Your task to perform on an android device: change notifications settings Image 0: 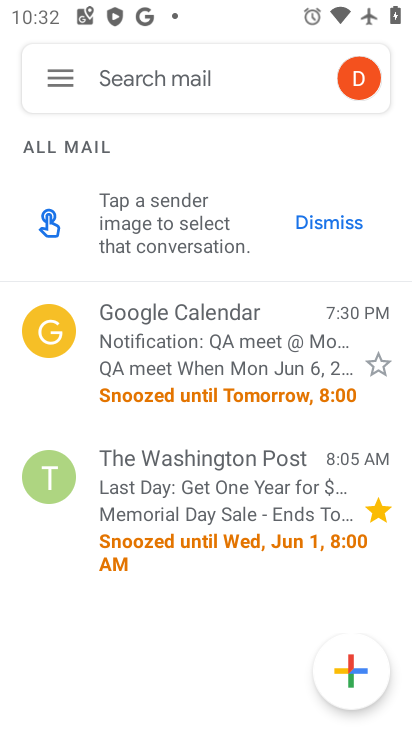
Step 0: press home button
Your task to perform on an android device: change notifications settings Image 1: 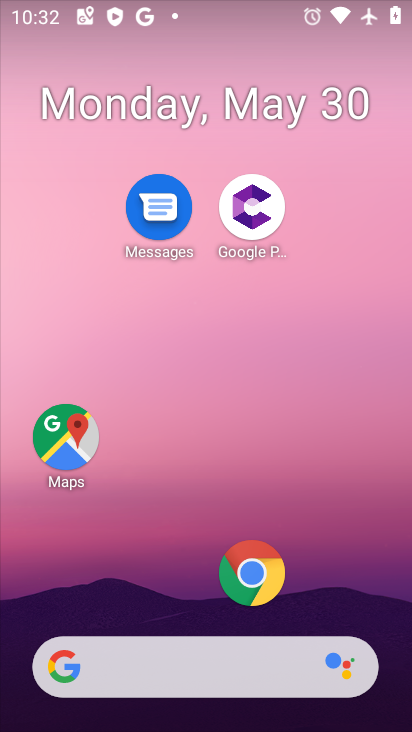
Step 1: drag from (177, 634) to (310, 13)
Your task to perform on an android device: change notifications settings Image 2: 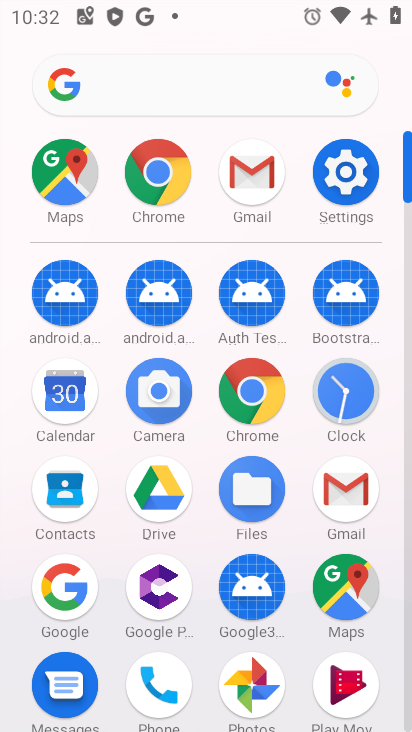
Step 2: click (338, 202)
Your task to perform on an android device: change notifications settings Image 3: 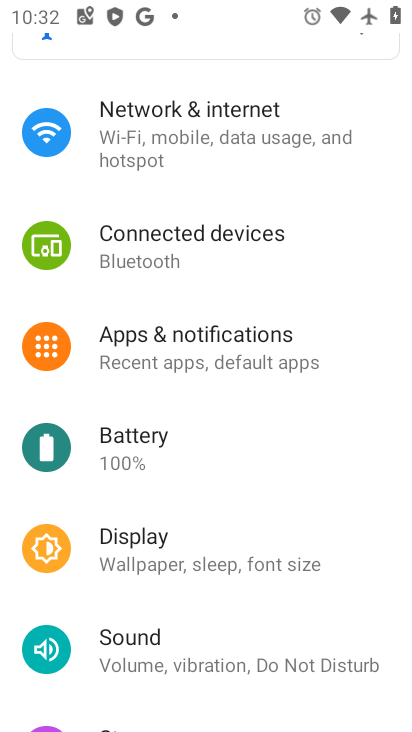
Step 3: click (266, 383)
Your task to perform on an android device: change notifications settings Image 4: 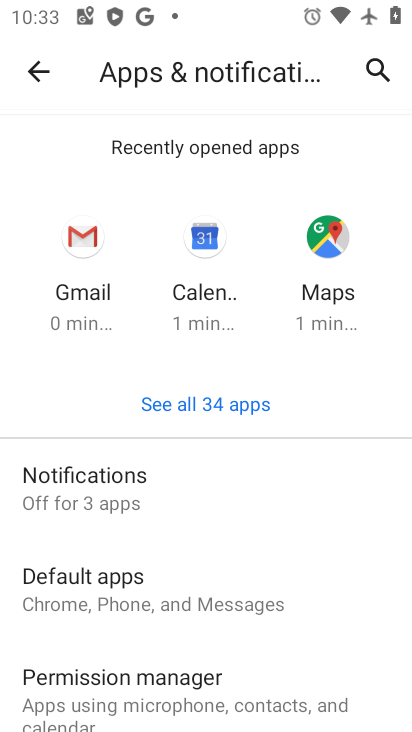
Step 4: click (213, 489)
Your task to perform on an android device: change notifications settings Image 5: 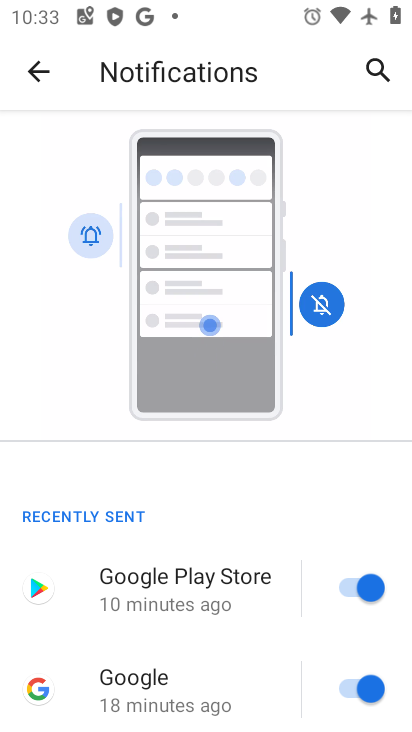
Step 5: task complete